Your task to perform on an android device: snooze an email in the gmail app Image 0: 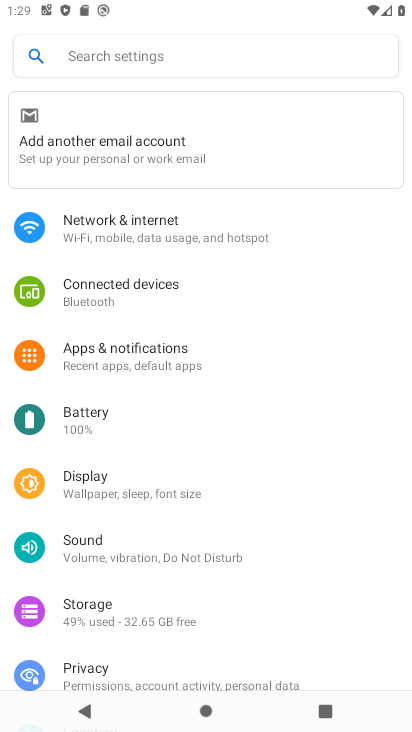
Step 0: press home button
Your task to perform on an android device: snooze an email in the gmail app Image 1: 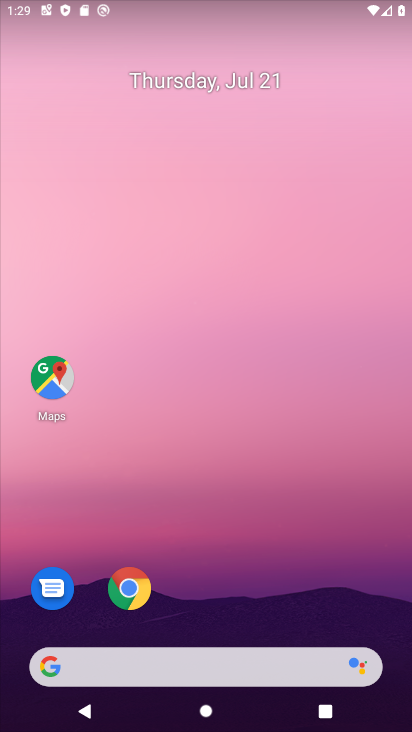
Step 1: drag from (280, 613) to (185, 217)
Your task to perform on an android device: snooze an email in the gmail app Image 2: 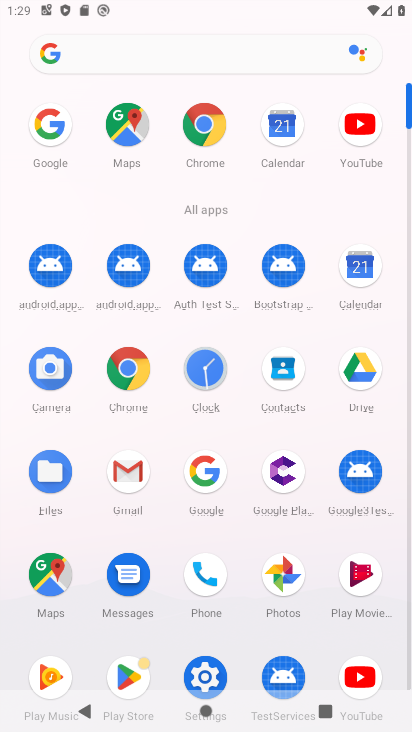
Step 2: click (129, 479)
Your task to perform on an android device: snooze an email in the gmail app Image 3: 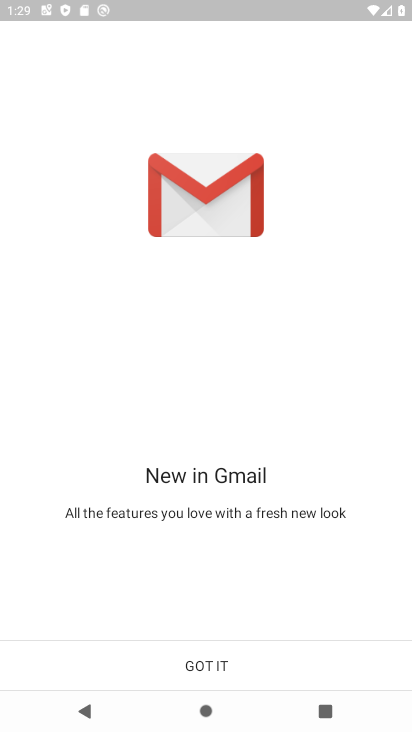
Step 3: click (214, 666)
Your task to perform on an android device: snooze an email in the gmail app Image 4: 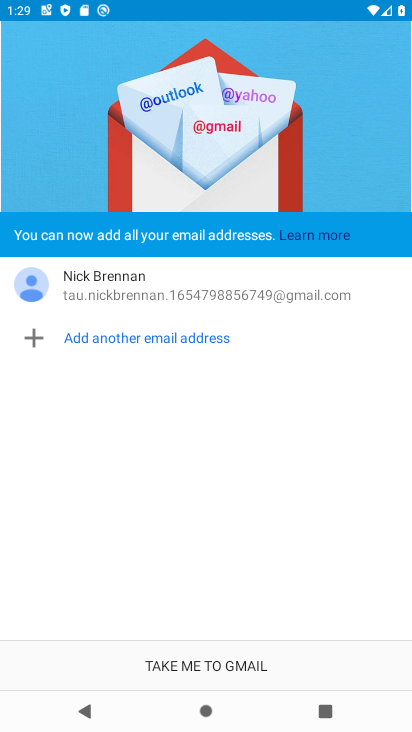
Step 4: click (214, 666)
Your task to perform on an android device: snooze an email in the gmail app Image 5: 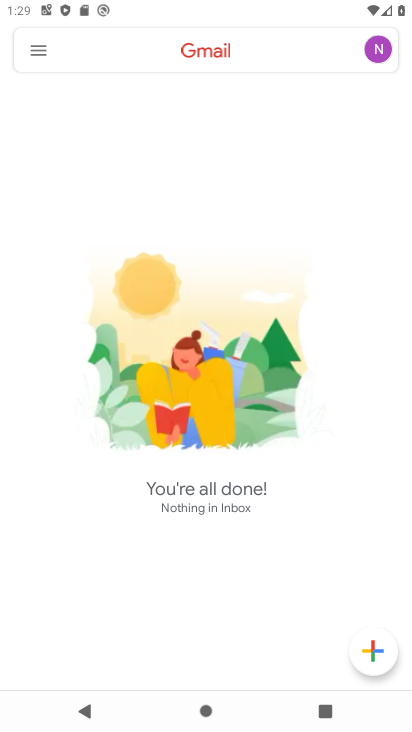
Step 5: click (36, 56)
Your task to perform on an android device: snooze an email in the gmail app Image 6: 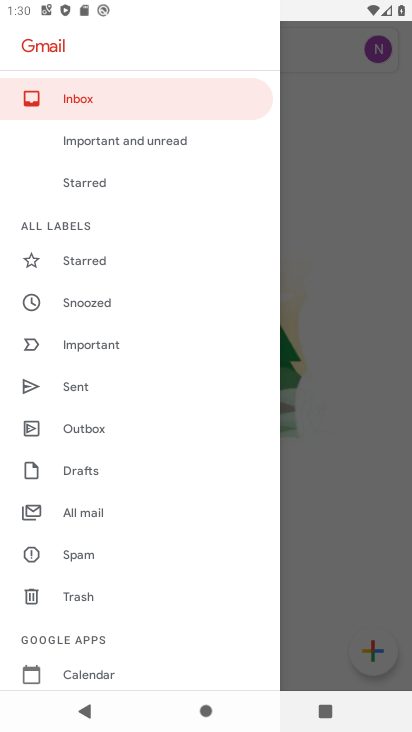
Step 6: click (96, 519)
Your task to perform on an android device: snooze an email in the gmail app Image 7: 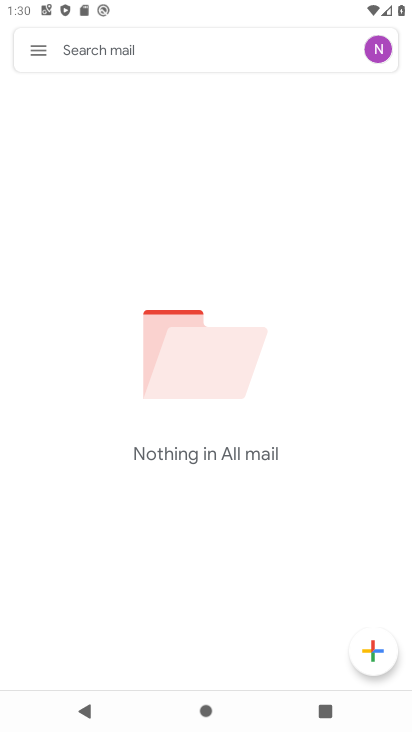
Step 7: task complete